Your task to perform on an android device: toggle notifications settings in the gmail app Image 0: 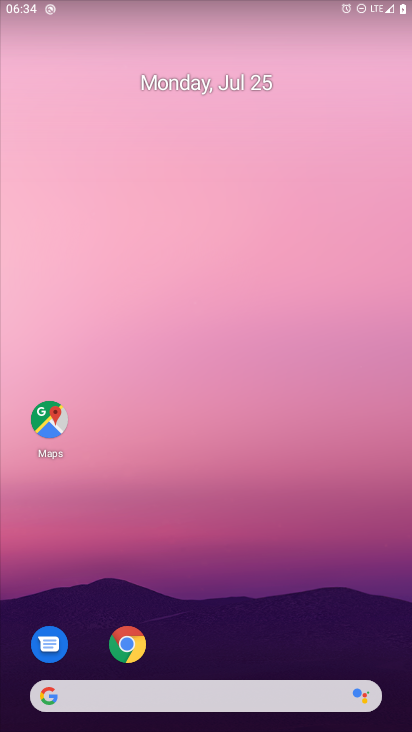
Step 0: drag from (229, 647) to (243, 226)
Your task to perform on an android device: toggle notifications settings in the gmail app Image 1: 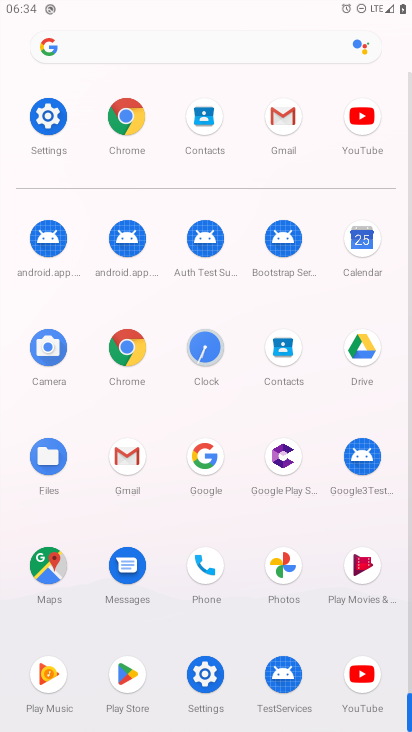
Step 1: click (282, 113)
Your task to perform on an android device: toggle notifications settings in the gmail app Image 2: 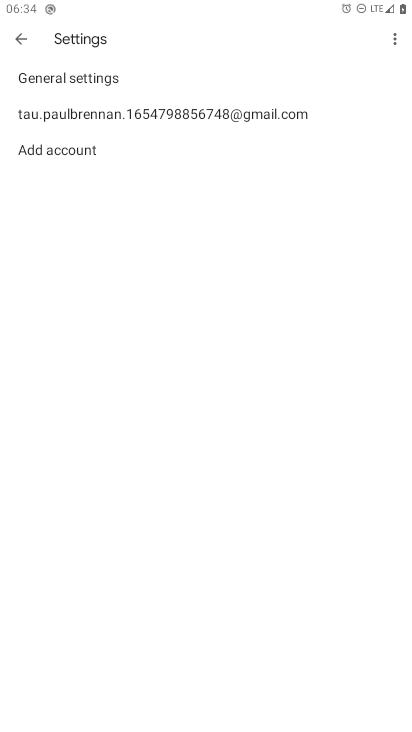
Step 2: click (56, 81)
Your task to perform on an android device: toggle notifications settings in the gmail app Image 3: 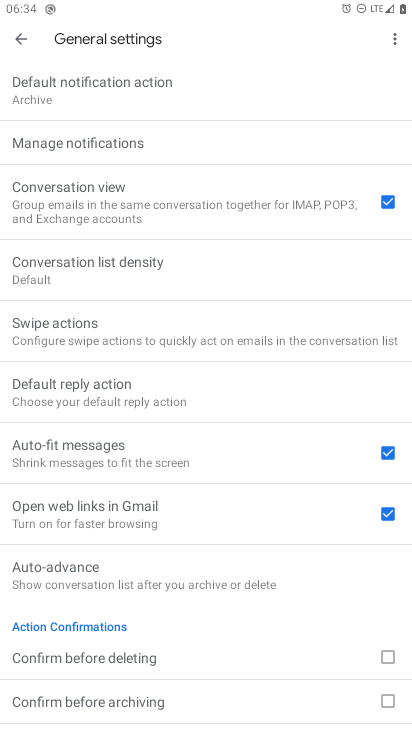
Step 3: click (71, 147)
Your task to perform on an android device: toggle notifications settings in the gmail app Image 4: 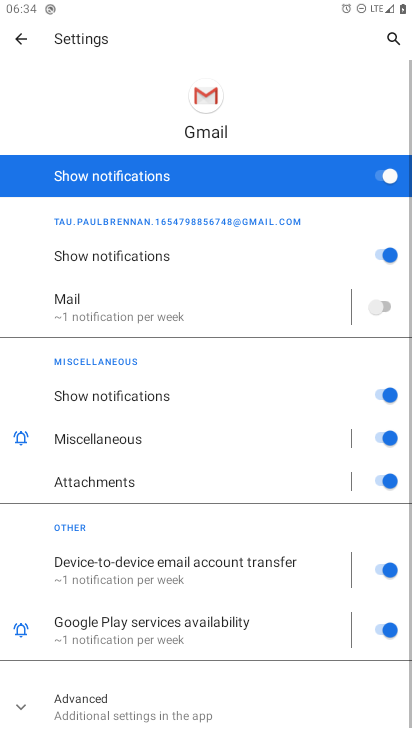
Step 4: click (395, 171)
Your task to perform on an android device: toggle notifications settings in the gmail app Image 5: 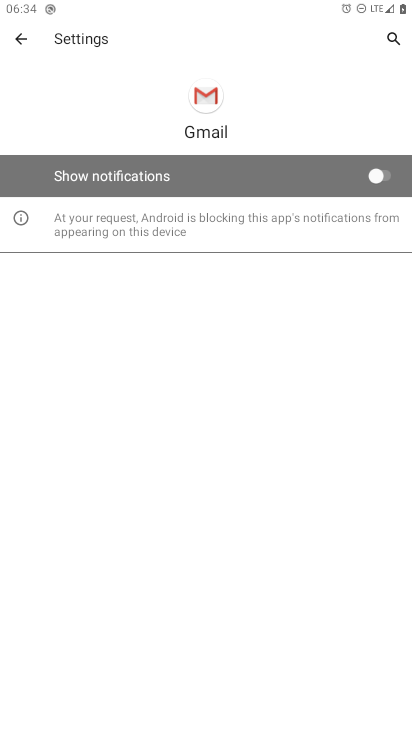
Step 5: task complete